Your task to perform on an android device: turn on improve location accuracy Image 0: 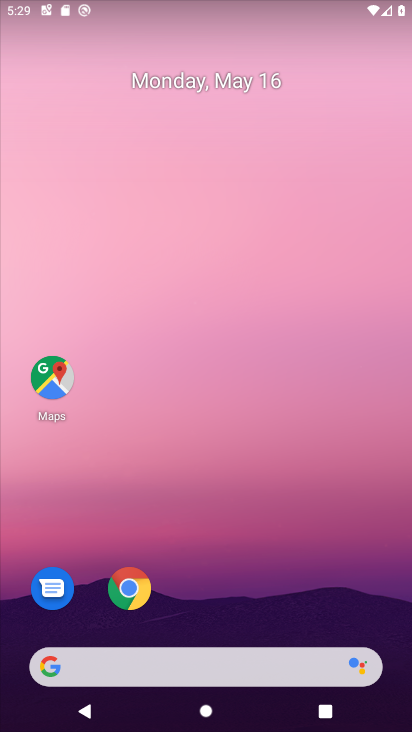
Step 0: drag from (278, 506) to (262, 65)
Your task to perform on an android device: turn on improve location accuracy Image 1: 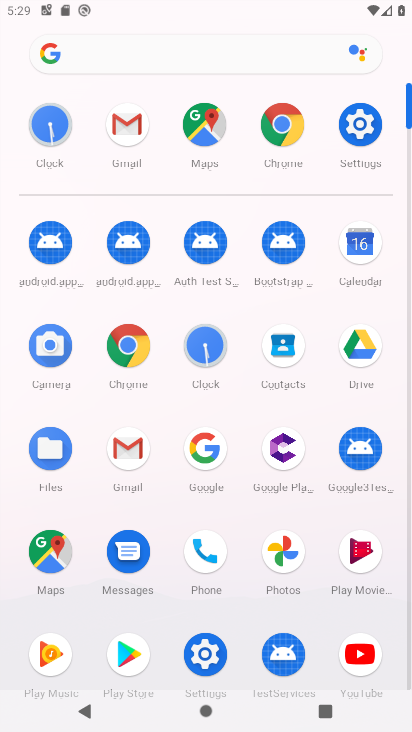
Step 1: click (367, 126)
Your task to perform on an android device: turn on improve location accuracy Image 2: 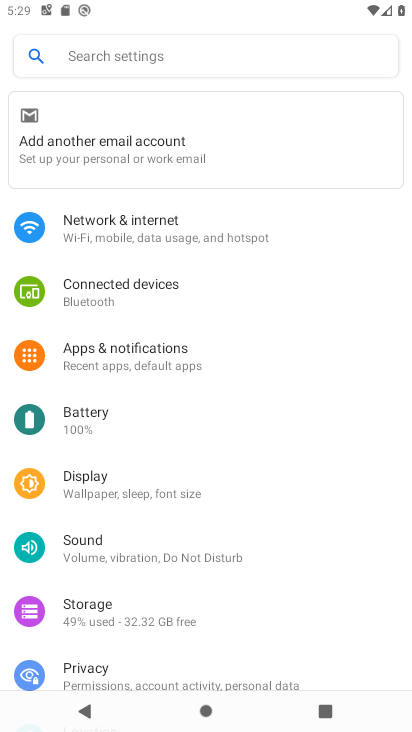
Step 2: drag from (149, 603) to (191, 157)
Your task to perform on an android device: turn on improve location accuracy Image 3: 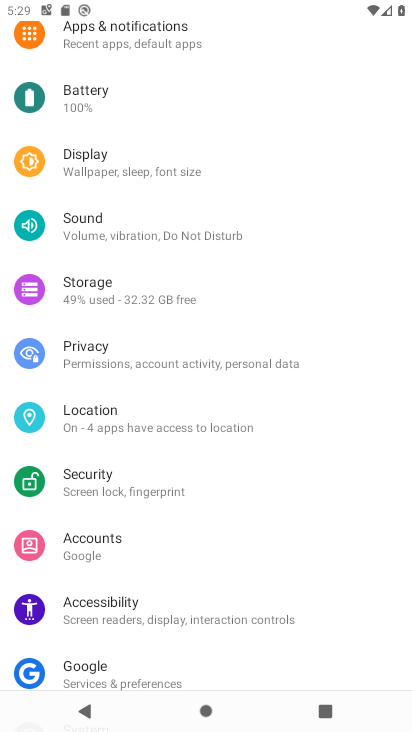
Step 3: click (159, 425)
Your task to perform on an android device: turn on improve location accuracy Image 4: 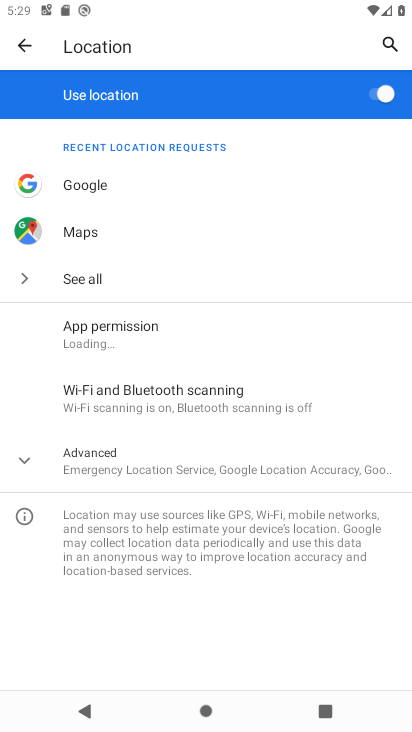
Step 4: click (150, 473)
Your task to perform on an android device: turn on improve location accuracy Image 5: 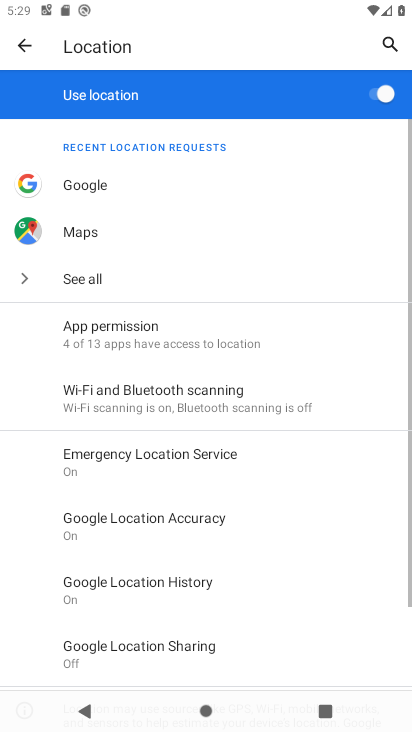
Step 5: click (260, 513)
Your task to perform on an android device: turn on improve location accuracy Image 6: 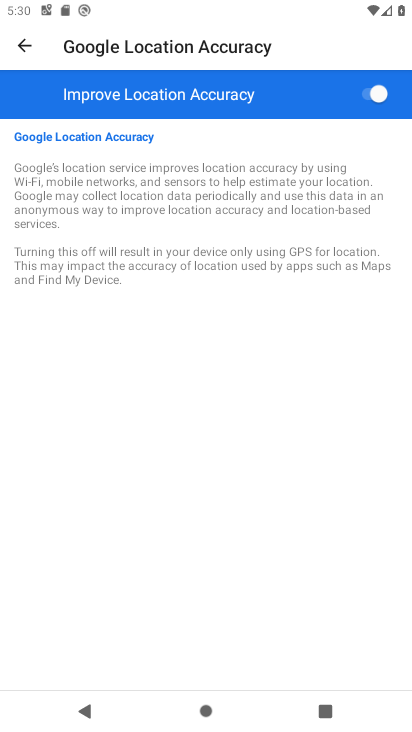
Step 6: task complete